Your task to perform on an android device: Go to network settings Image 0: 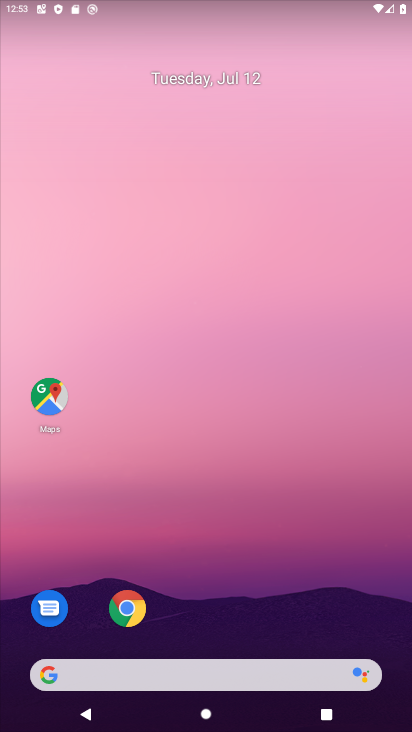
Step 0: drag from (277, 610) to (279, 168)
Your task to perform on an android device: Go to network settings Image 1: 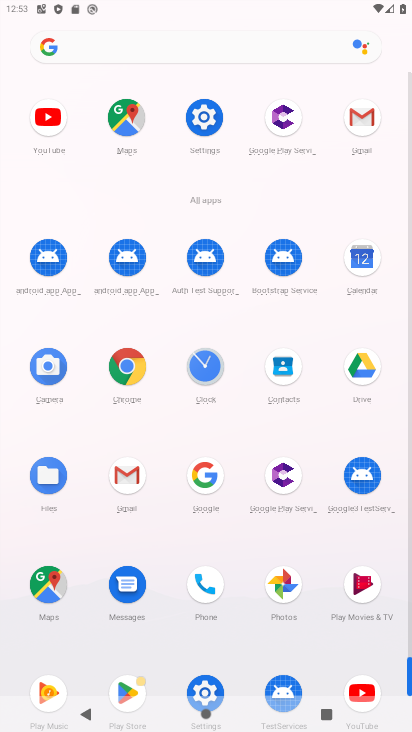
Step 1: click (203, 113)
Your task to perform on an android device: Go to network settings Image 2: 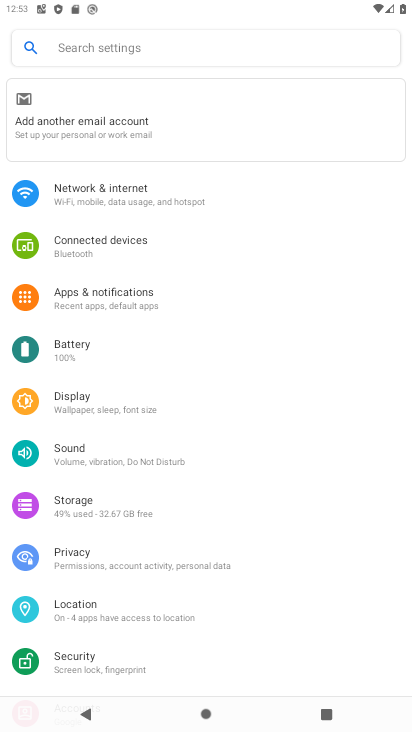
Step 2: click (129, 200)
Your task to perform on an android device: Go to network settings Image 3: 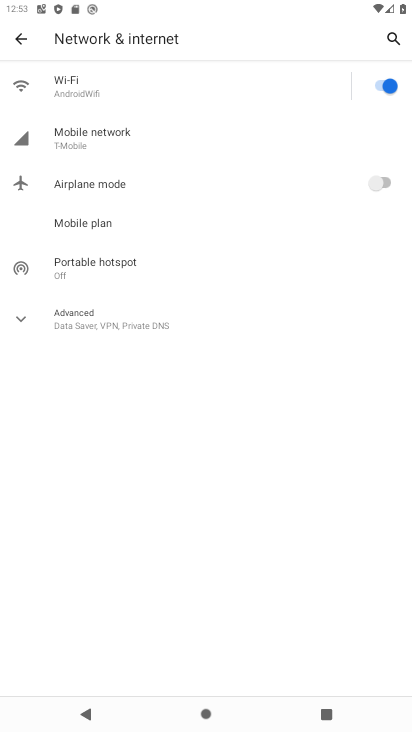
Step 3: task complete